Your task to perform on an android device: When is my next meeting? Image 0: 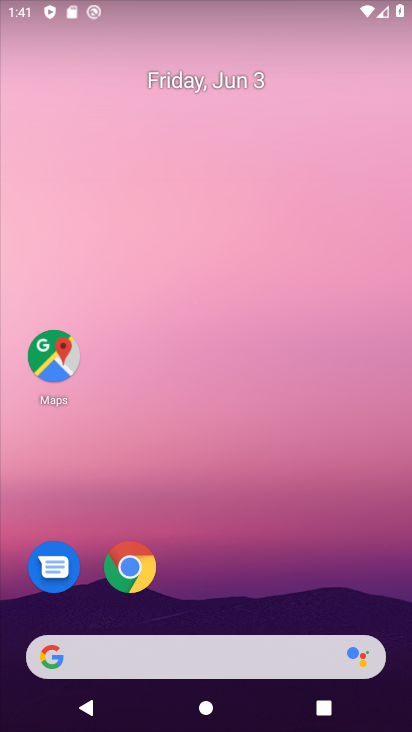
Step 0: drag from (233, 595) to (276, 118)
Your task to perform on an android device: When is my next meeting? Image 1: 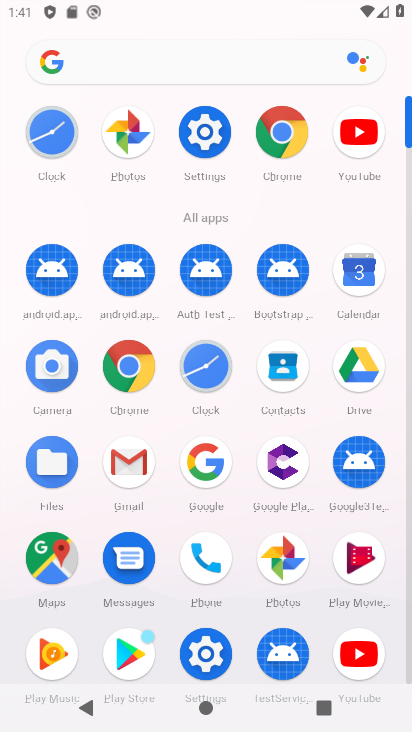
Step 1: click (354, 274)
Your task to perform on an android device: When is my next meeting? Image 2: 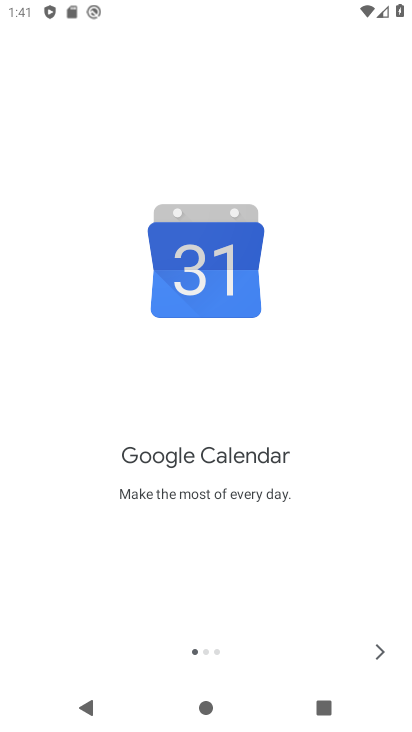
Step 2: click (382, 655)
Your task to perform on an android device: When is my next meeting? Image 3: 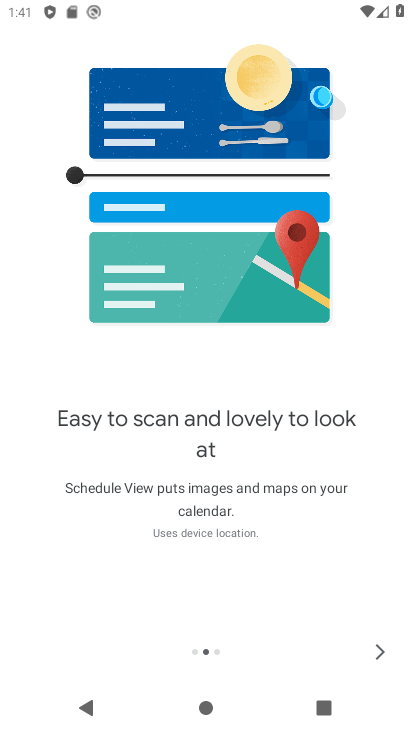
Step 3: click (403, 639)
Your task to perform on an android device: When is my next meeting? Image 4: 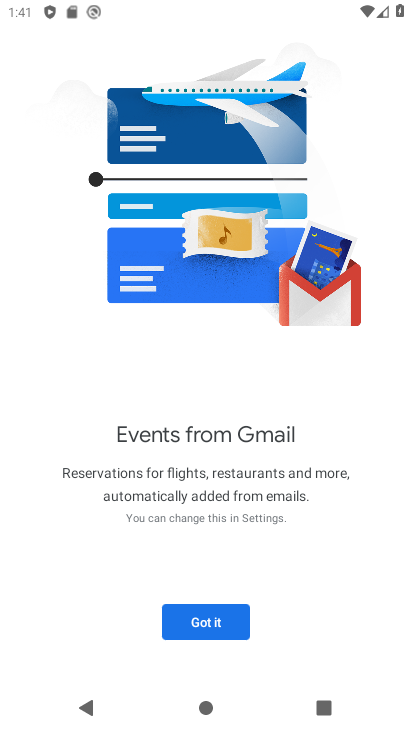
Step 4: click (198, 625)
Your task to perform on an android device: When is my next meeting? Image 5: 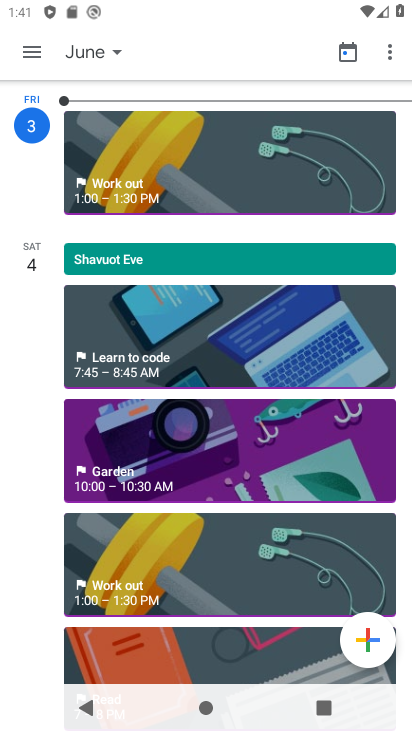
Step 5: drag from (197, 540) to (287, 103)
Your task to perform on an android device: When is my next meeting? Image 6: 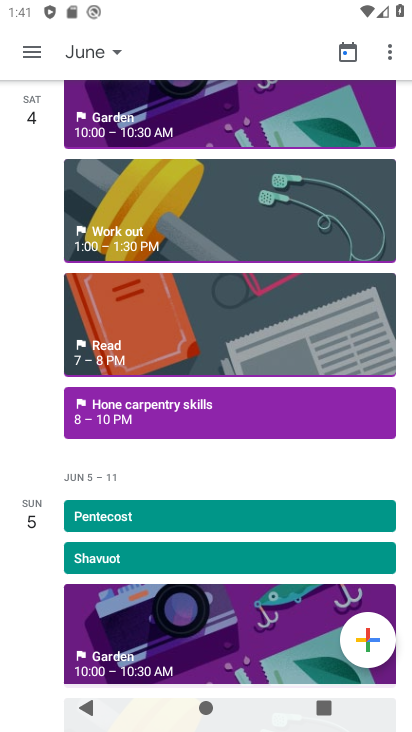
Step 6: drag from (186, 605) to (252, 159)
Your task to perform on an android device: When is my next meeting? Image 7: 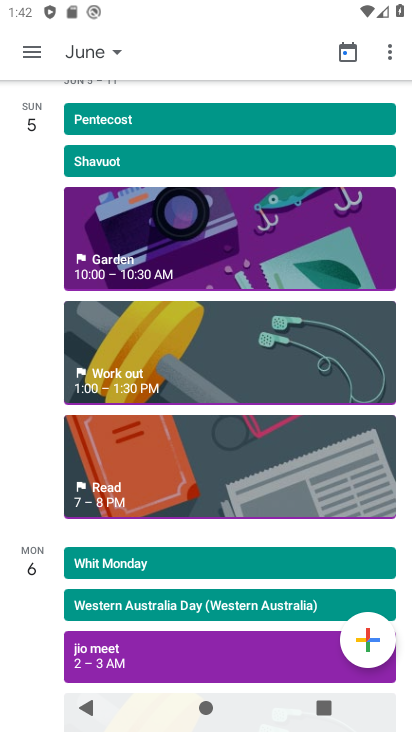
Step 7: click (123, 667)
Your task to perform on an android device: When is my next meeting? Image 8: 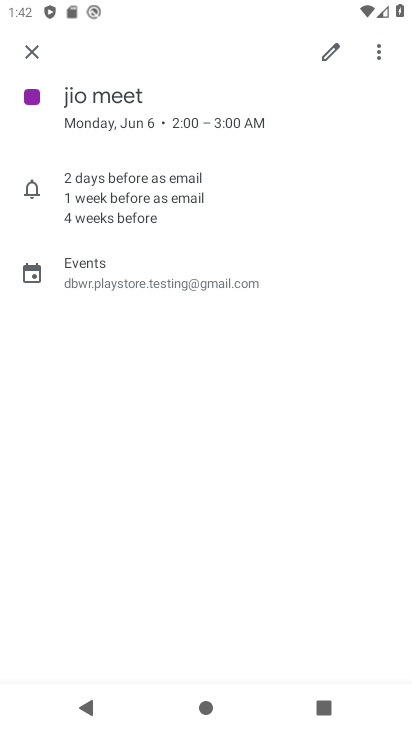
Step 8: task complete